Your task to perform on an android device: Do I have any events tomorrow? Image 0: 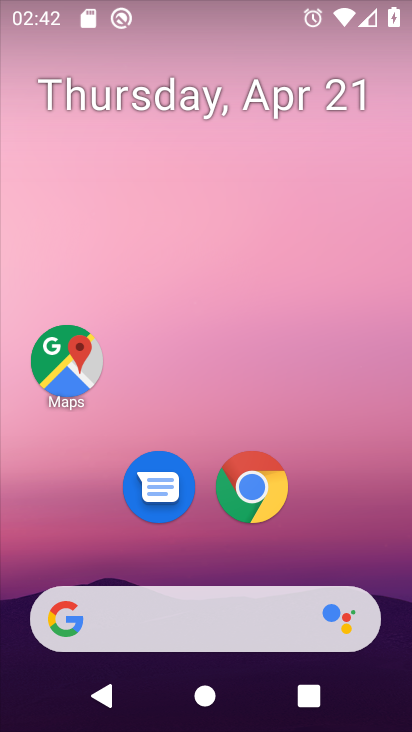
Step 0: drag from (365, 24) to (312, 0)
Your task to perform on an android device: Do I have any events tomorrow? Image 1: 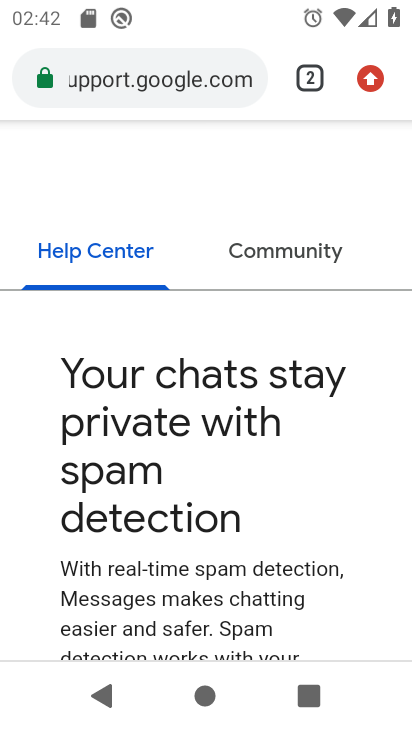
Step 1: press home button
Your task to perform on an android device: Do I have any events tomorrow? Image 2: 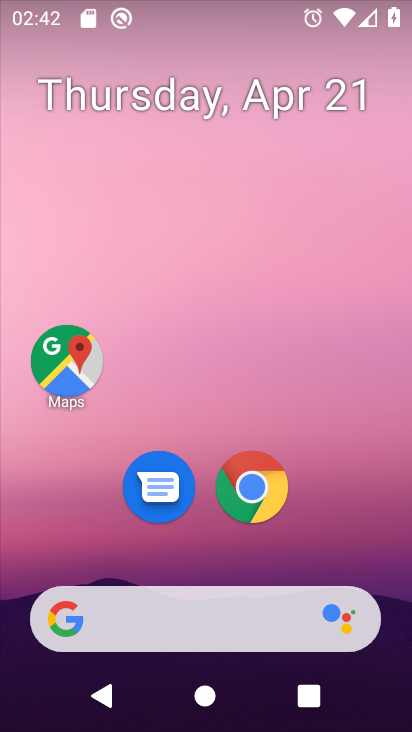
Step 2: drag from (202, 577) to (337, 8)
Your task to perform on an android device: Do I have any events tomorrow? Image 3: 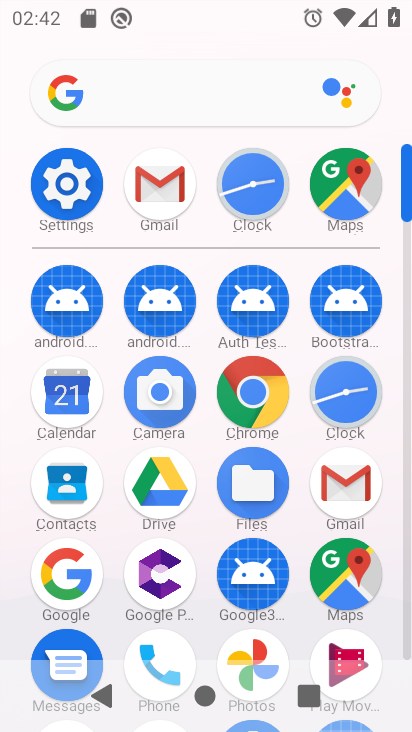
Step 3: click (77, 377)
Your task to perform on an android device: Do I have any events tomorrow? Image 4: 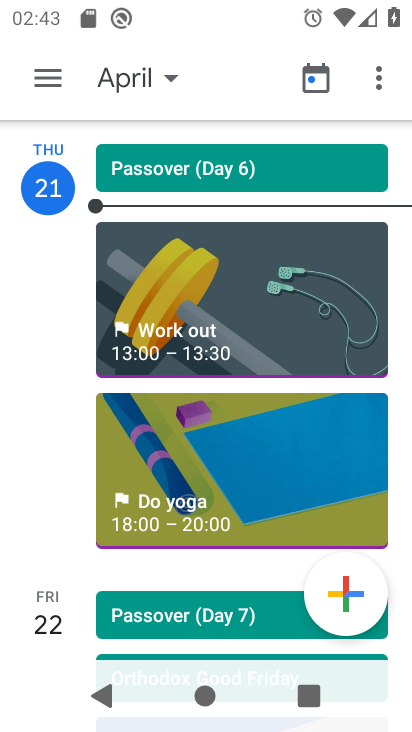
Step 4: drag from (251, 524) to (309, 271)
Your task to perform on an android device: Do I have any events tomorrow? Image 5: 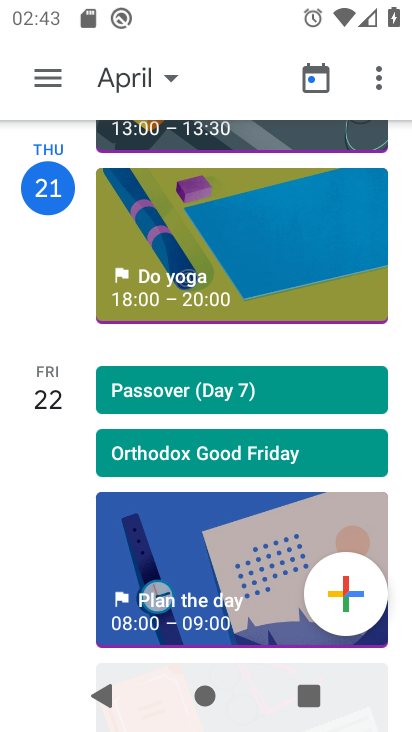
Step 5: drag from (297, 204) to (287, 547)
Your task to perform on an android device: Do I have any events tomorrow? Image 6: 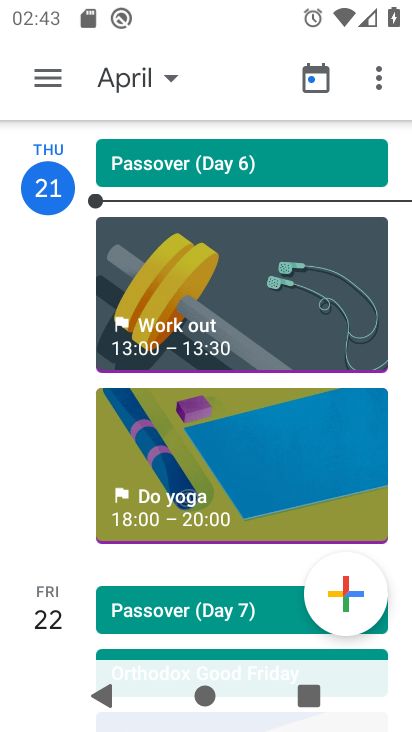
Step 6: click (155, 71)
Your task to perform on an android device: Do I have any events tomorrow? Image 7: 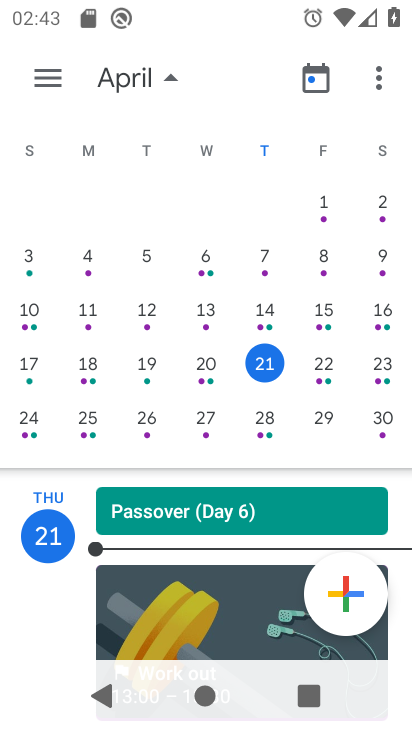
Step 7: click (321, 365)
Your task to perform on an android device: Do I have any events tomorrow? Image 8: 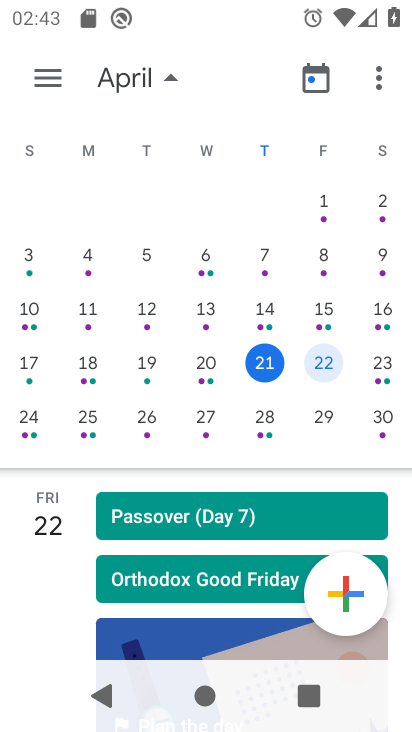
Step 8: task complete